Your task to perform on an android device: What's the weather going to be this weekend? Image 0: 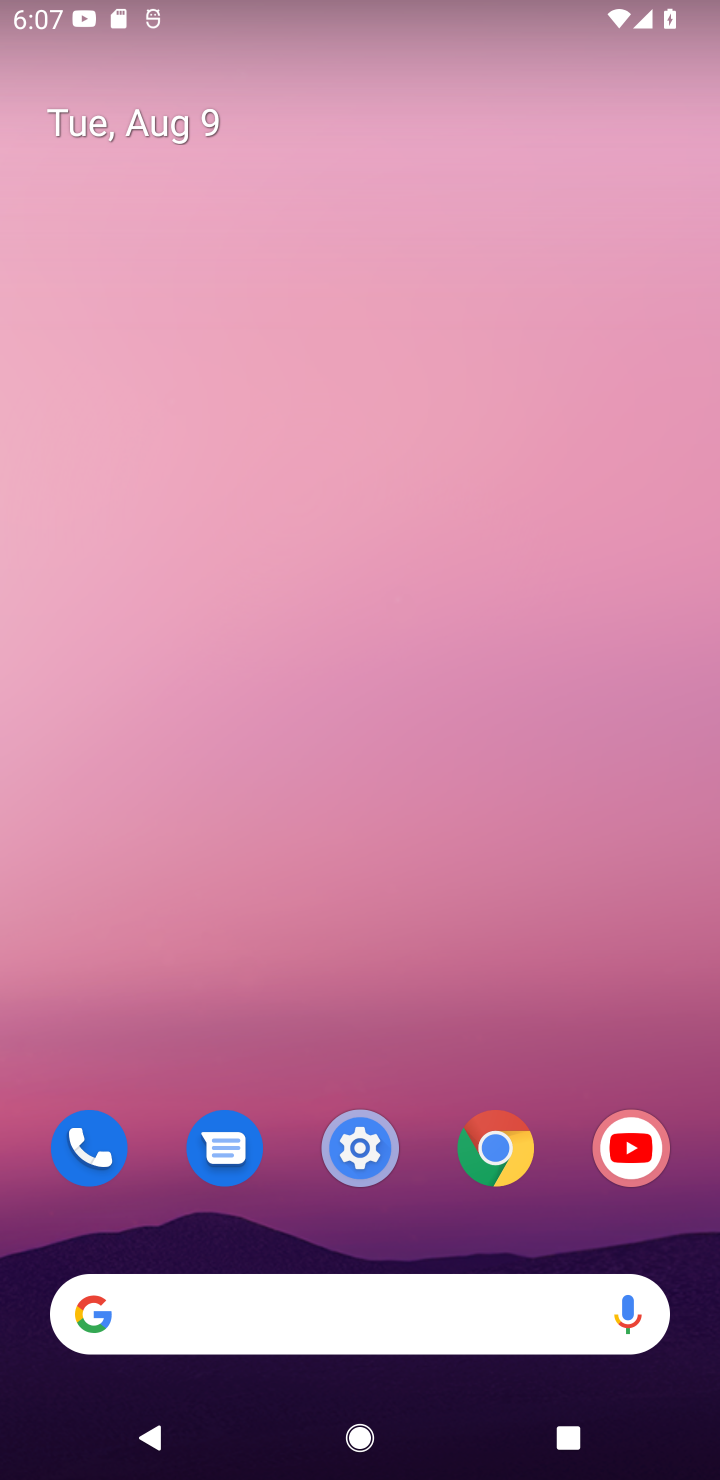
Step 0: click (351, 1312)
Your task to perform on an android device: What's the weather going to be this weekend? Image 1: 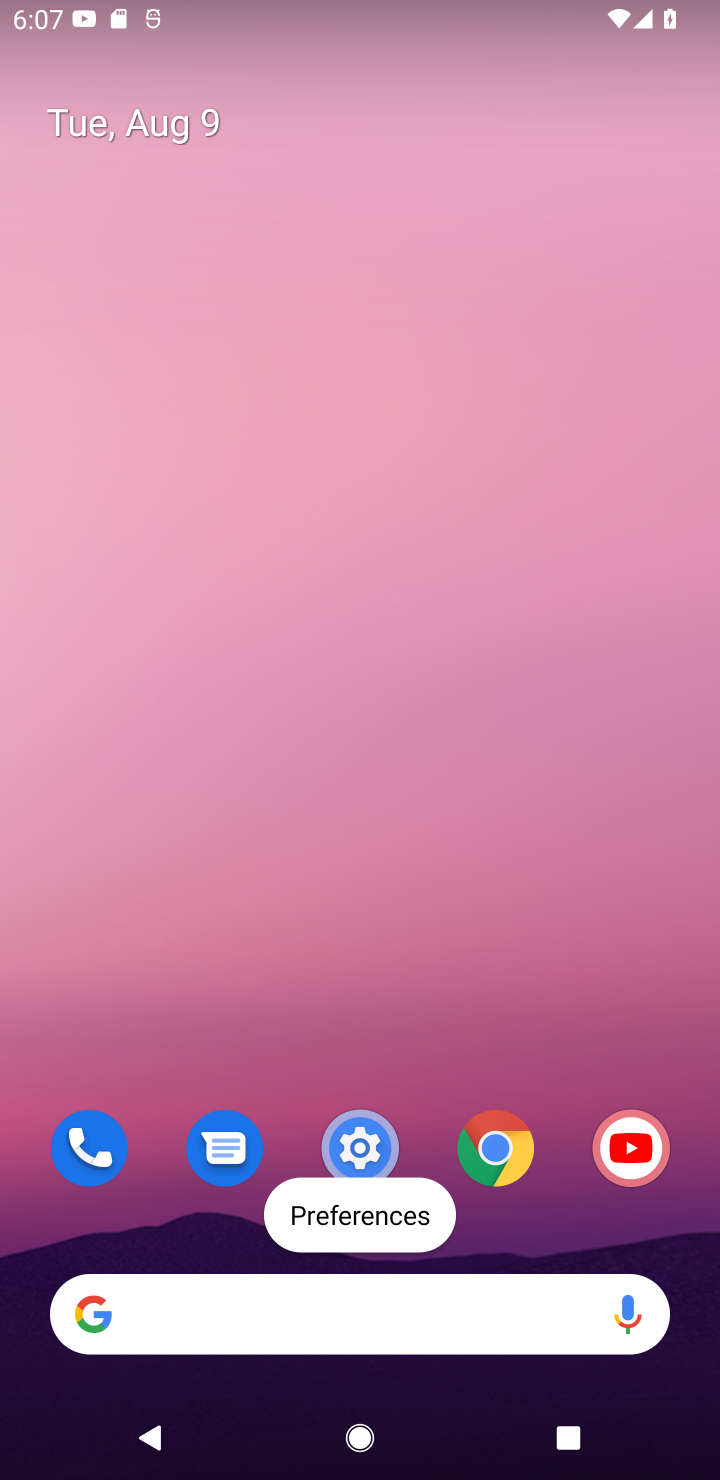
Step 1: click (181, 1311)
Your task to perform on an android device: What's the weather going to be this weekend? Image 2: 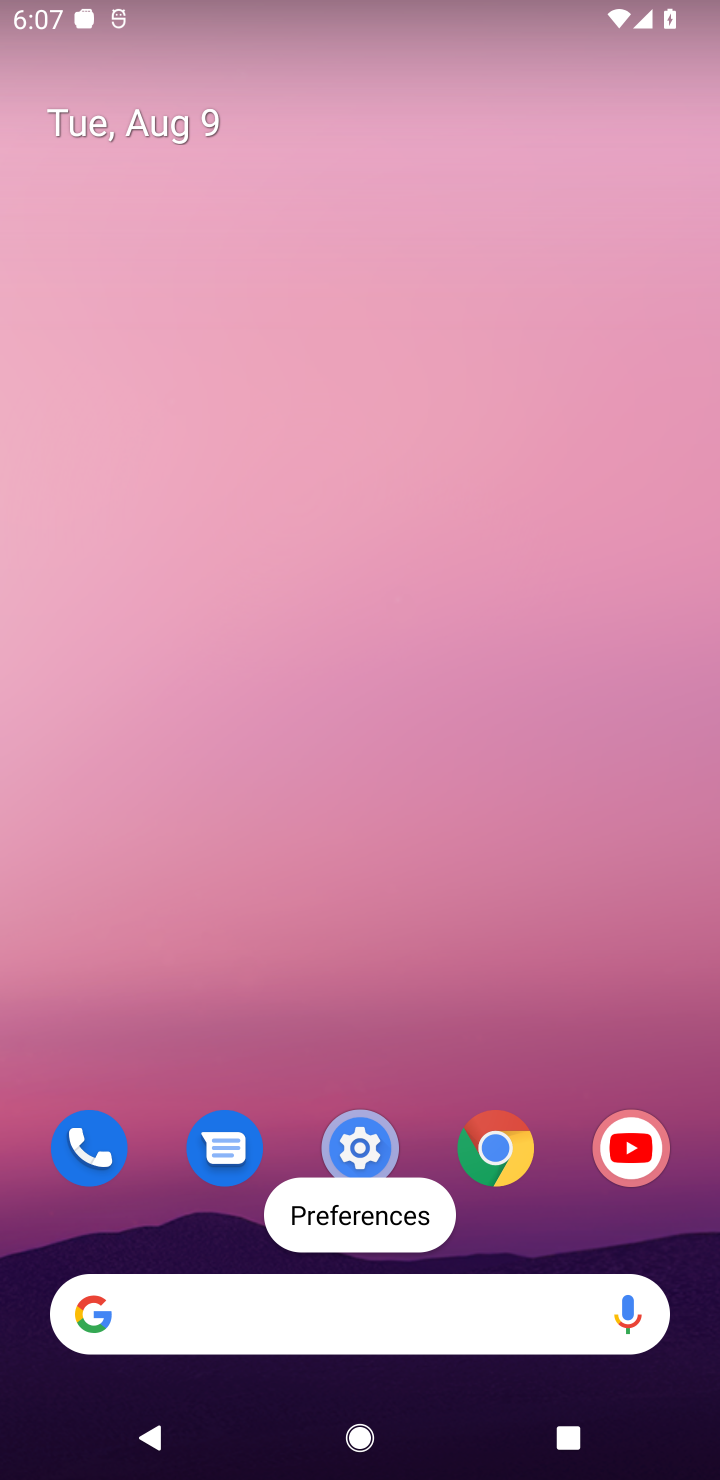
Step 2: drag from (187, 927) to (320, 44)
Your task to perform on an android device: What's the weather going to be this weekend? Image 3: 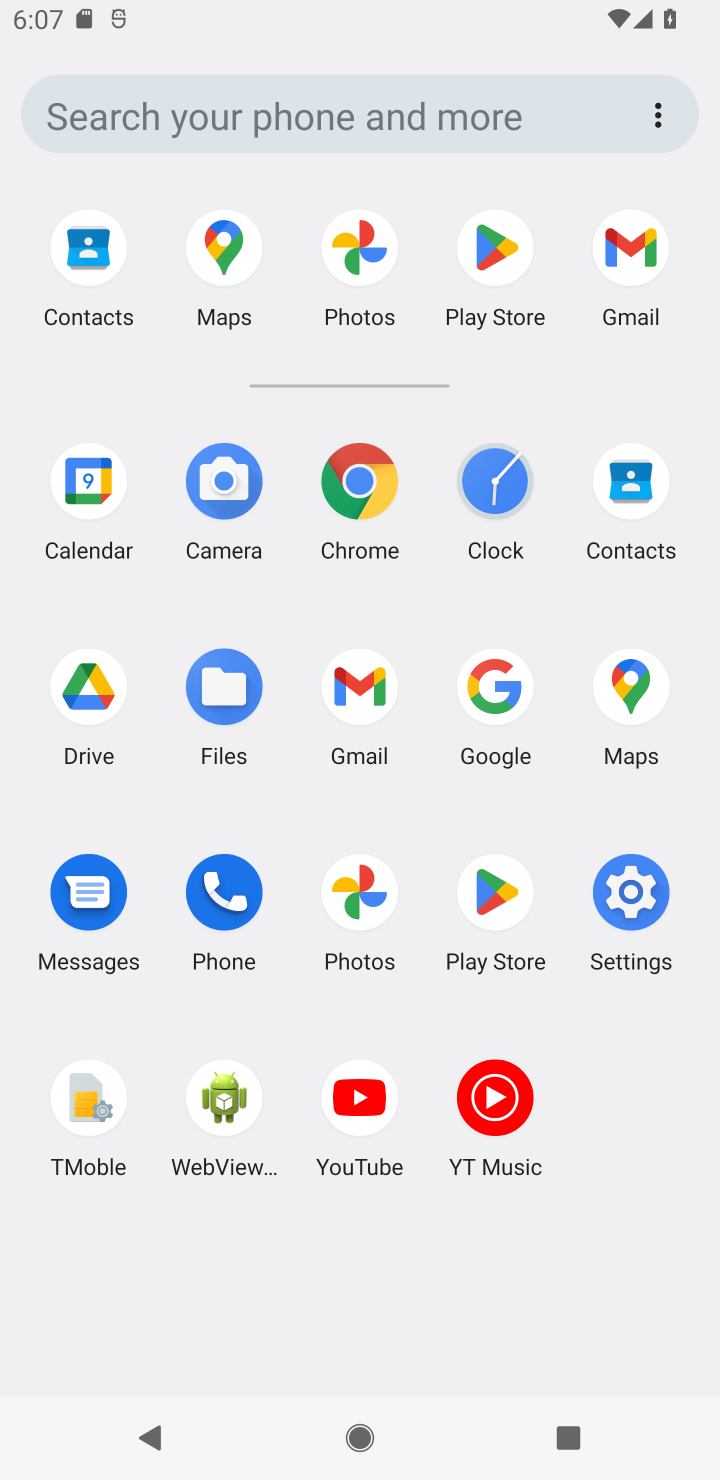
Step 3: click (480, 731)
Your task to perform on an android device: What's the weather going to be this weekend? Image 4: 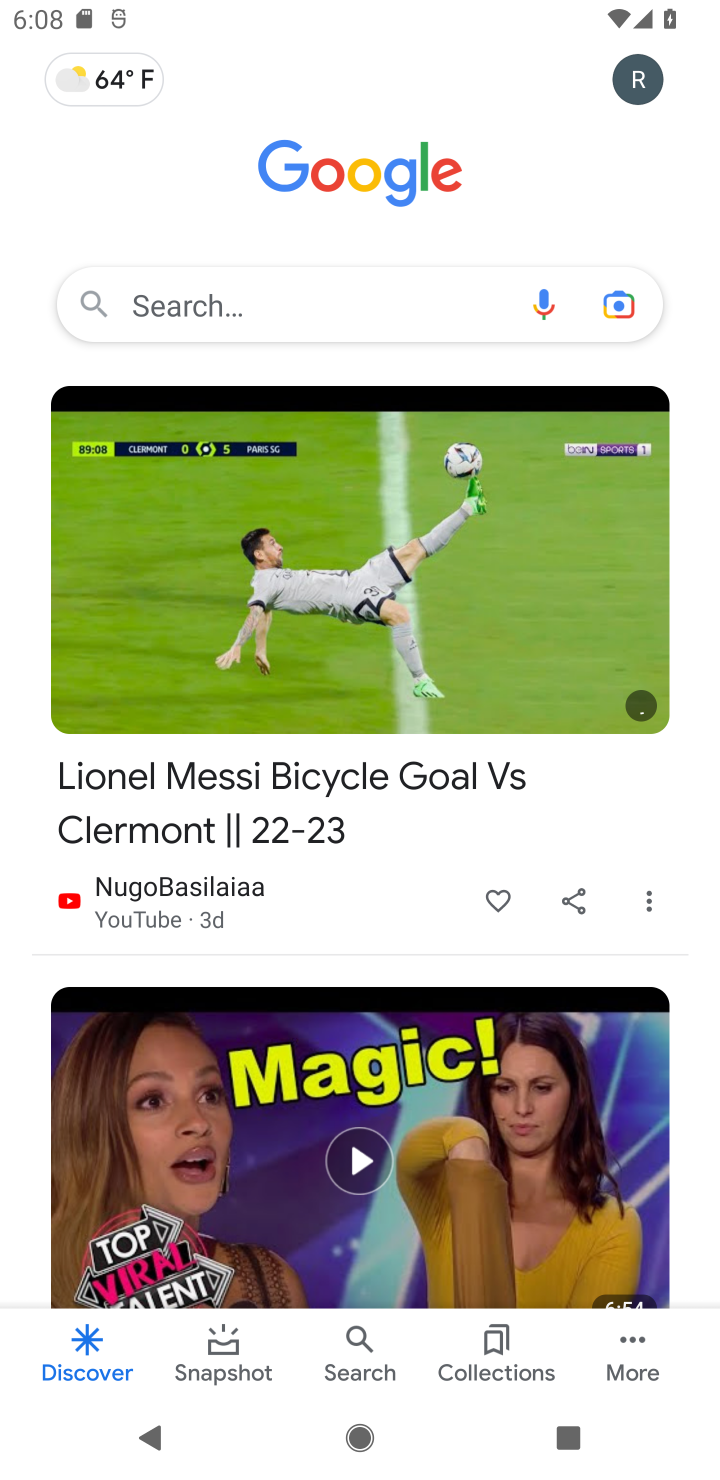
Step 4: click (289, 284)
Your task to perform on an android device: What's the weather going to be this weekend? Image 5: 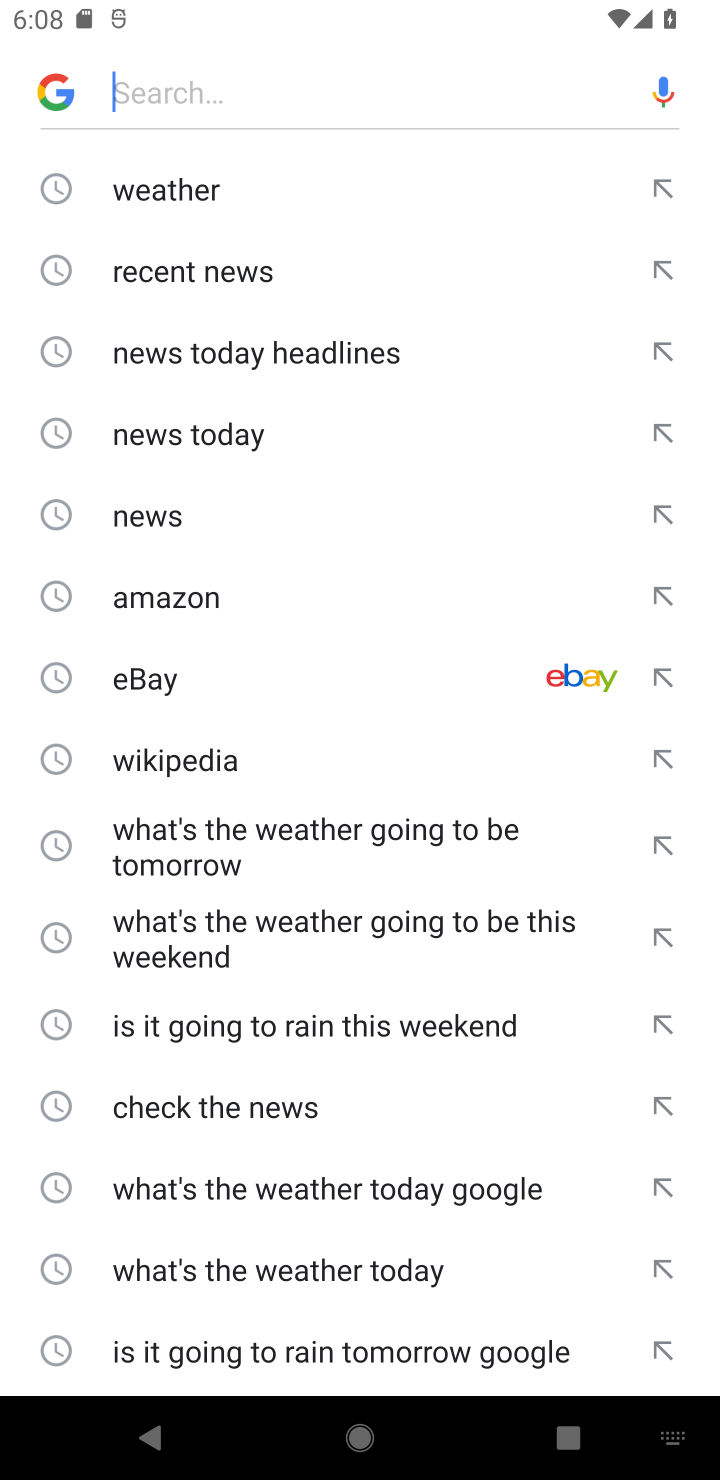
Step 5: click (212, 196)
Your task to perform on an android device: What's the weather going to be this weekend? Image 6: 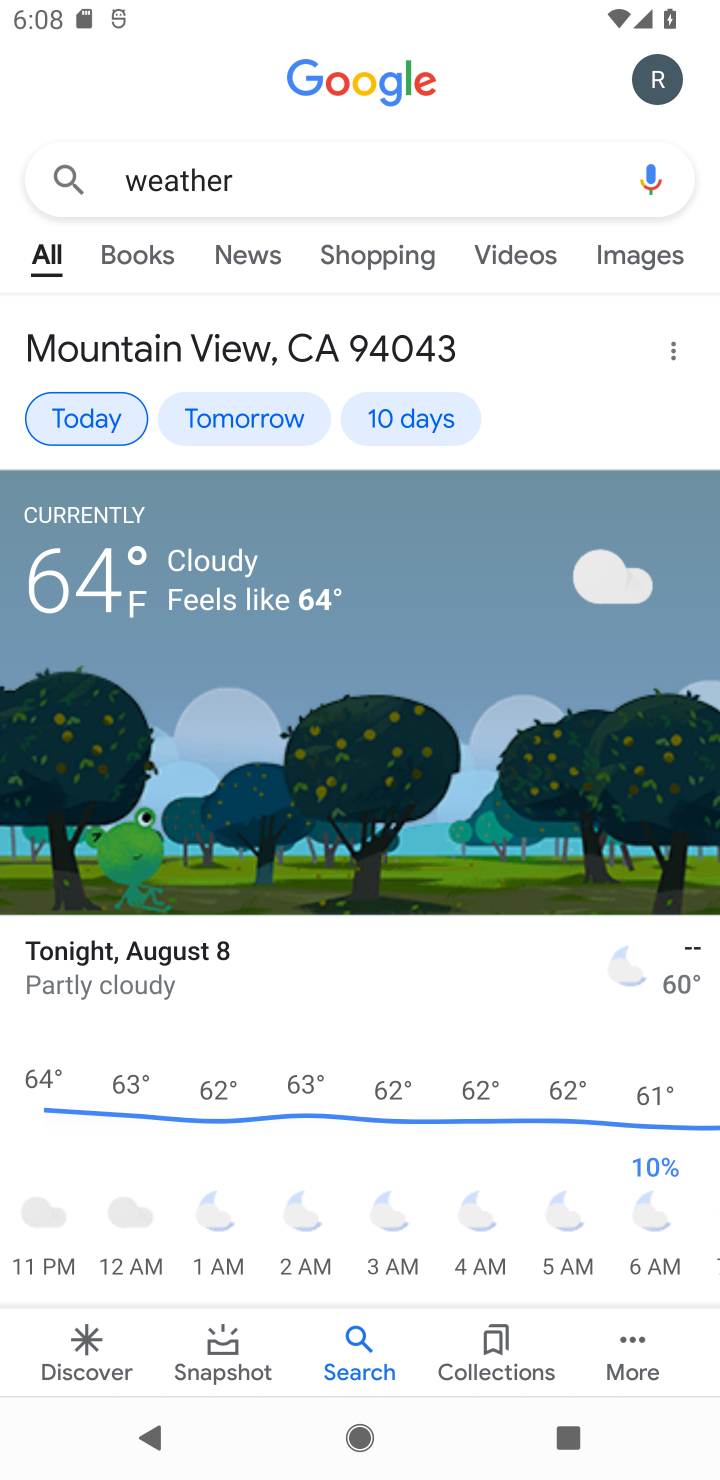
Step 6: click (424, 426)
Your task to perform on an android device: What's the weather going to be this weekend? Image 7: 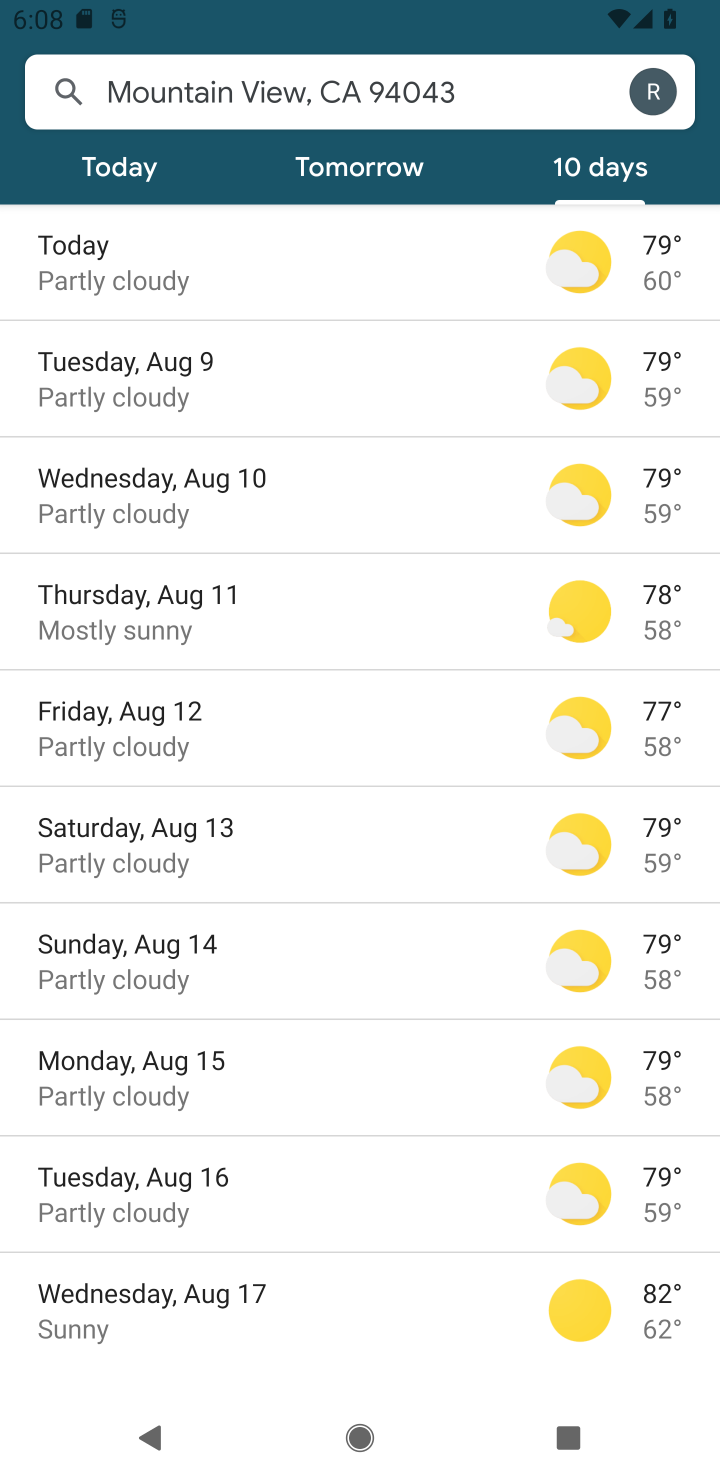
Step 7: task complete